Your task to perform on an android device: toggle notification dots Image 0: 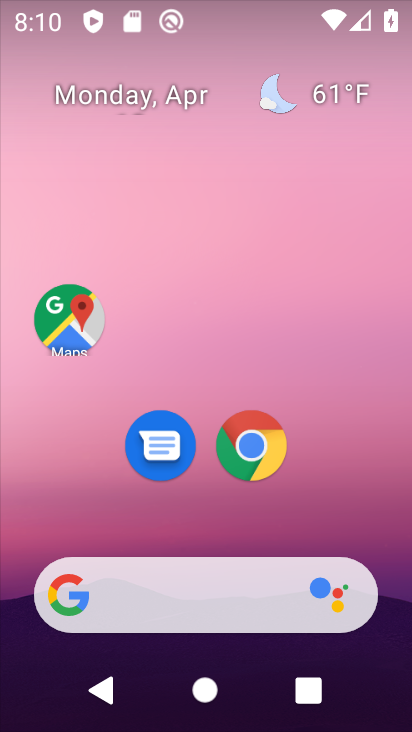
Step 0: drag from (177, 535) to (201, 194)
Your task to perform on an android device: toggle notification dots Image 1: 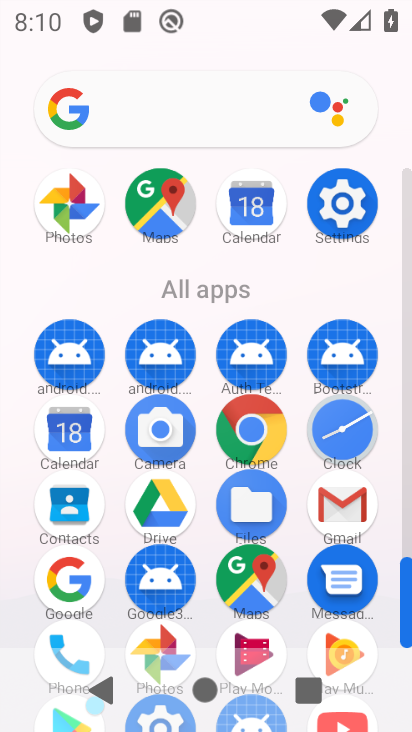
Step 1: click (342, 210)
Your task to perform on an android device: toggle notification dots Image 2: 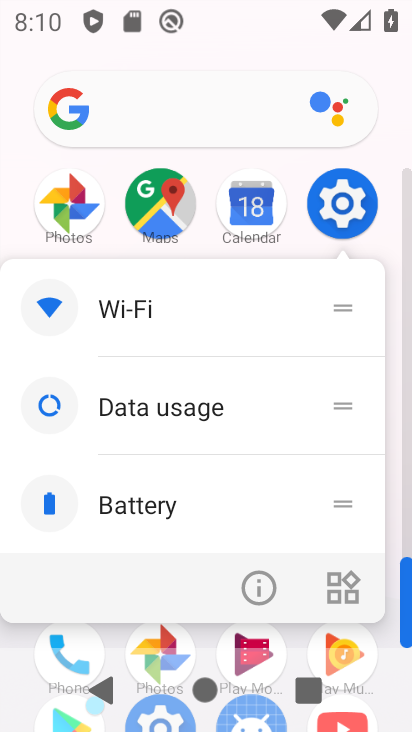
Step 2: click (338, 197)
Your task to perform on an android device: toggle notification dots Image 3: 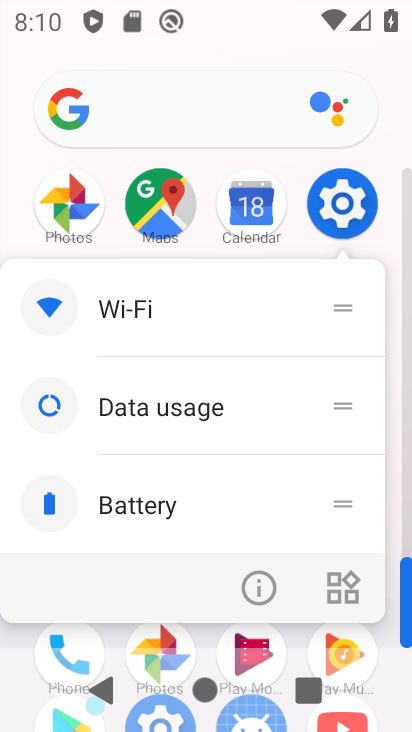
Step 3: click (334, 206)
Your task to perform on an android device: toggle notification dots Image 4: 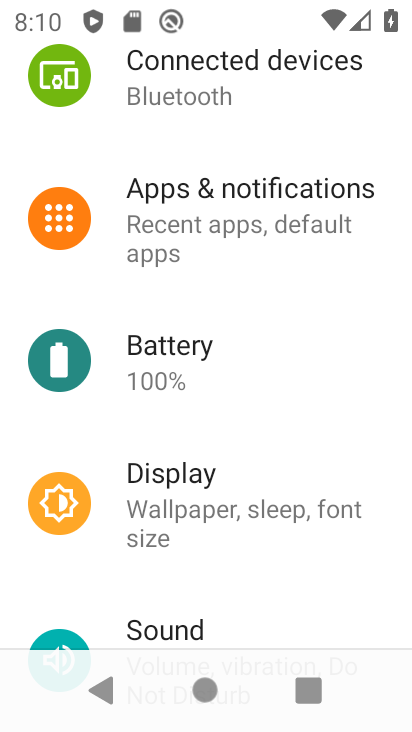
Step 4: click (264, 214)
Your task to perform on an android device: toggle notification dots Image 5: 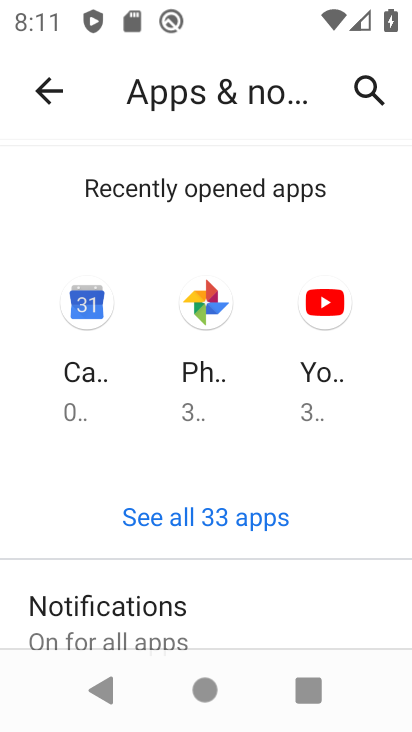
Step 5: drag from (125, 496) to (193, 266)
Your task to perform on an android device: toggle notification dots Image 6: 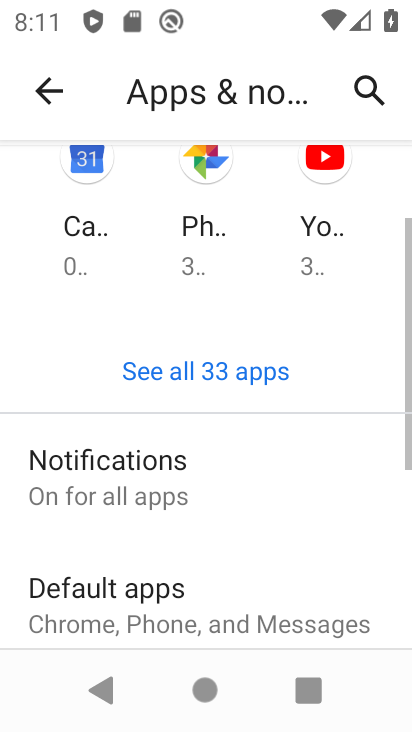
Step 6: click (99, 497)
Your task to perform on an android device: toggle notification dots Image 7: 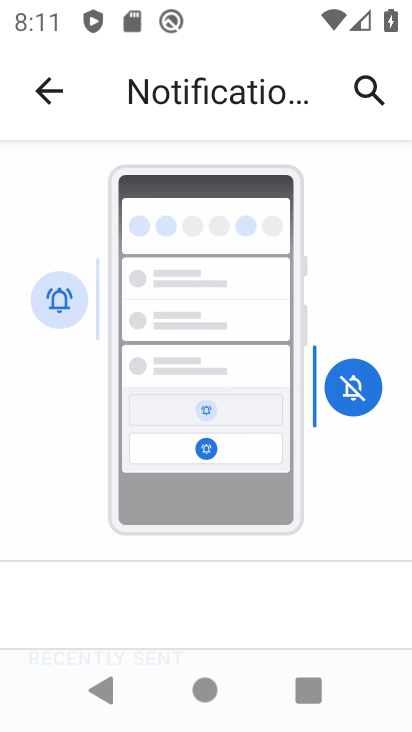
Step 7: drag from (107, 613) to (321, 270)
Your task to perform on an android device: toggle notification dots Image 8: 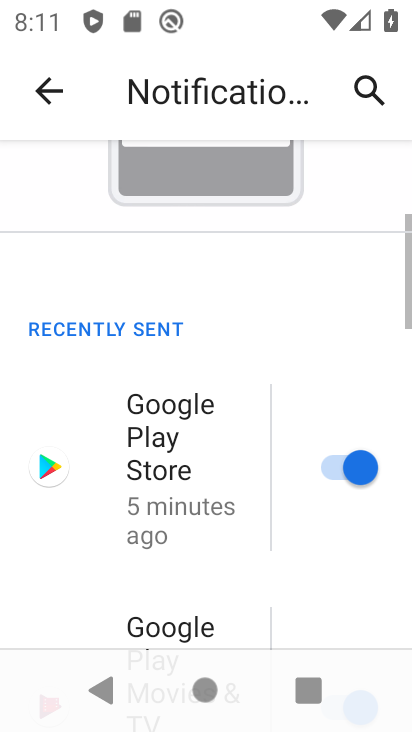
Step 8: drag from (139, 554) to (234, 277)
Your task to perform on an android device: toggle notification dots Image 9: 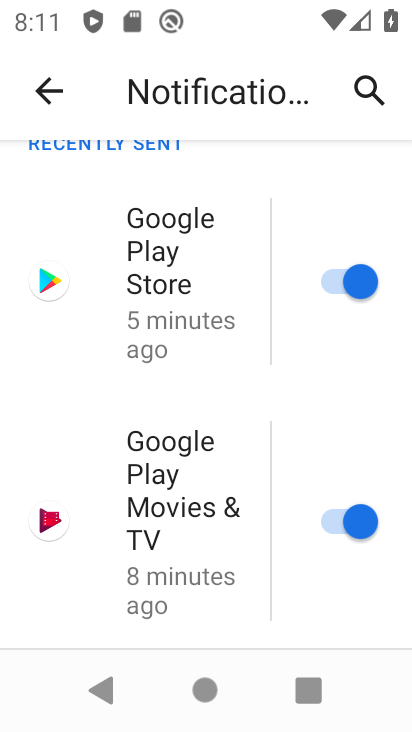
Step 9: drag from (217, 545) to (290, 328)
Your task to perform on an android device: toggle notification dots Image 10: 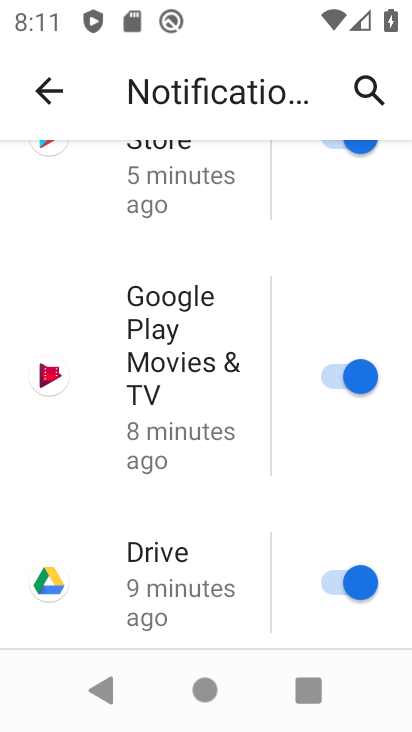
Step 10: drag from (191, 651) to (291, 398)
Your task to perform on an android device: toggle notification dots Image 11: 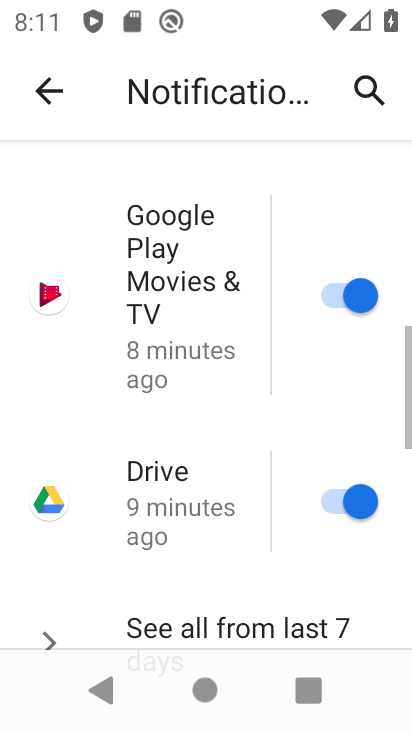
Step 11: drag from (273, 469) to (276, 420)
Your task to perform on an android device: toggle notification dots Image 12: 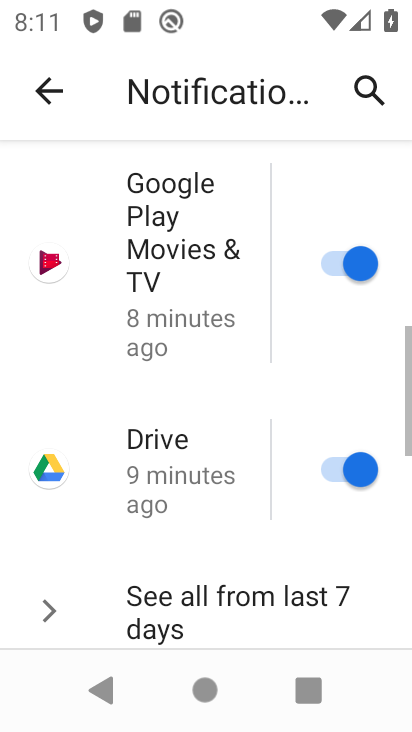
Step 12: drag from (221, 576) to (286, 419)
Your task to perform on an android device: toggle notification dots Image 13: 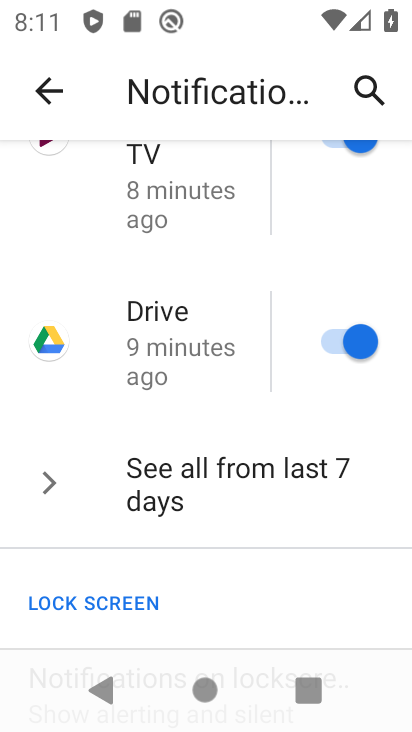
Step 13: drag from (235, 604) to (280, 436)
Your task to perform on an android device: toggle notification dots Image 14: 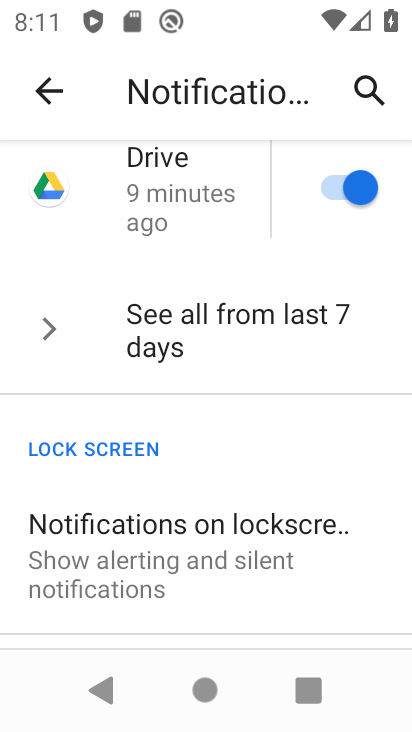
Step 14: click (280, 415)
Your task to perform on an android device: toggle notification dots Image 15: 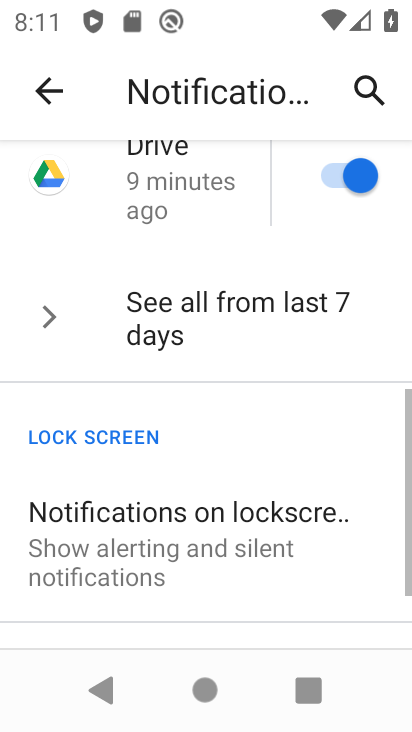
Step 15: drag from (127, 588) to (256, 372)
Your task to perform on an android device: toggle notification dots Image 16: 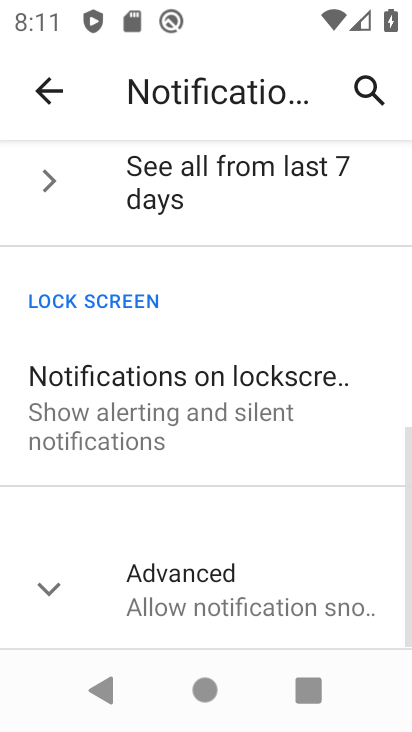
Step 16: drag from (87, 584) to (44, 579)
Your task to perform on an android device: toggle notification dots Image 17: 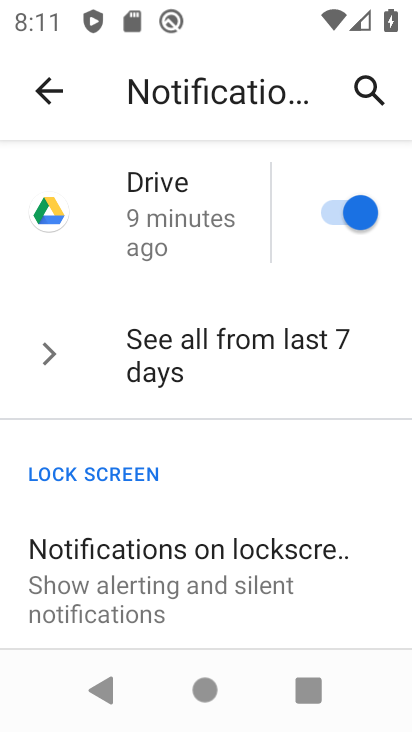
Step 17: drag from (163, 632) to (274, 364)
Your task to perform on an android device: toggle notification dots Image 18: 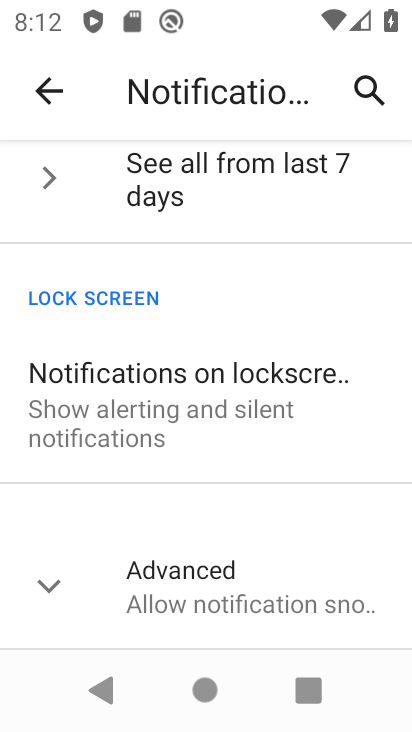
Step 18: drag from (71, 530) to (139, 458)
Your task to perform on an android device: toggle notification dots Image 19: 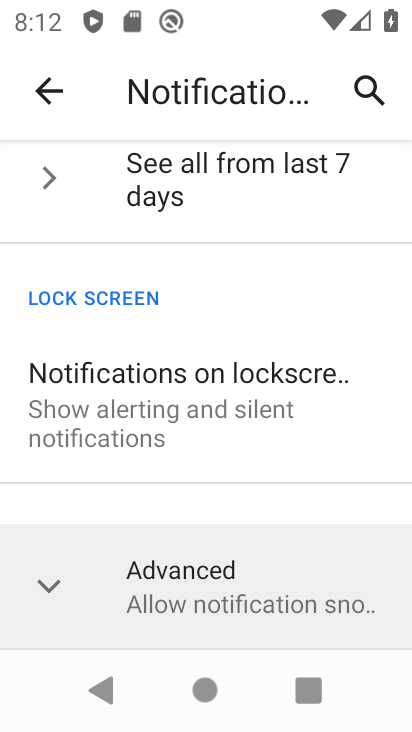
Step 19: click (47, 578)
Your task to perform on an android device: toggle notification dots Image 20: 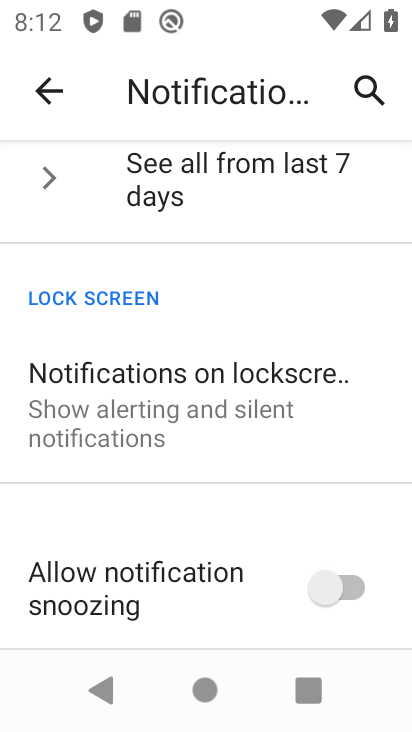
Step 20: drag from (229, 592) to (308, 340)
Your task to perform on an android device: toggle notification dots Image 21: 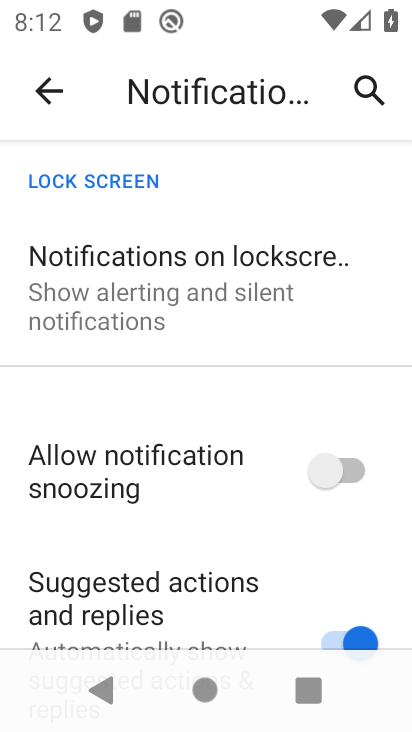
Step 21: drag from (193, 556) to (282, 374)
Your task to perform on an android device: toggle notification dots Image 22: 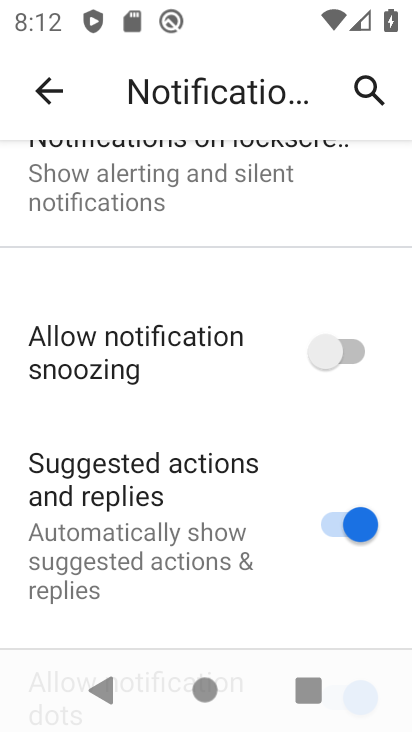
Step 22: drag from (218, 597) to (309, 354)
Your task to perform on an android device: toggle notification dots Image 23: 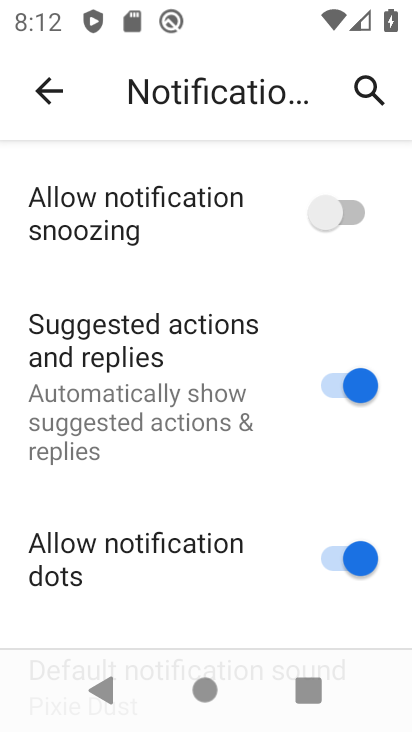
Step 23: click (338, 558)
Your task to perform on an android device: toggle notification dots Image 24: 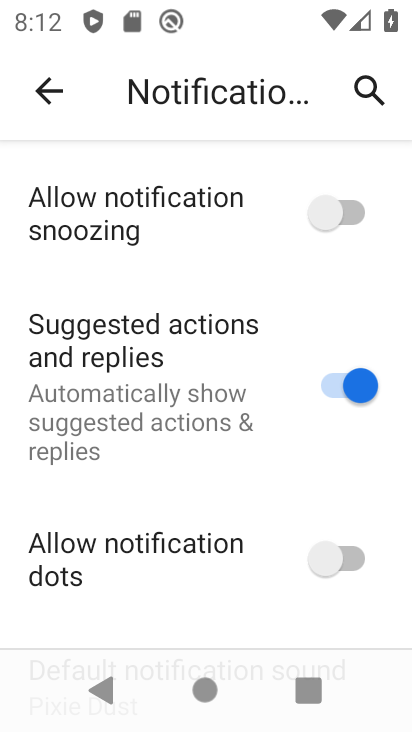
Step 24: task complete